Your task to perform on an android device: Open notification settings Image 0: 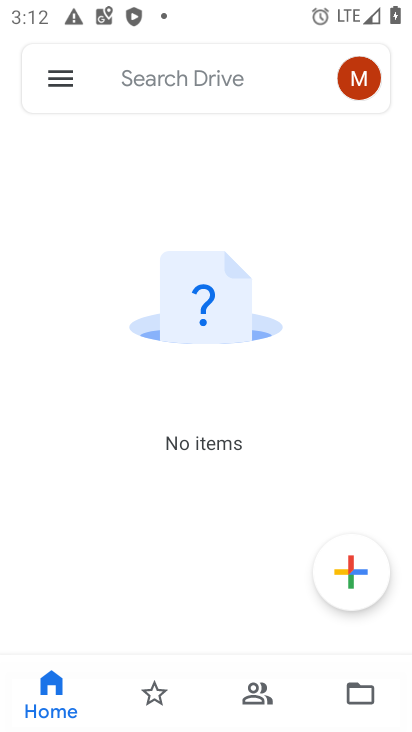
Step 0: press home button
Your task to perform on an android device: Open notification settings Image 1: 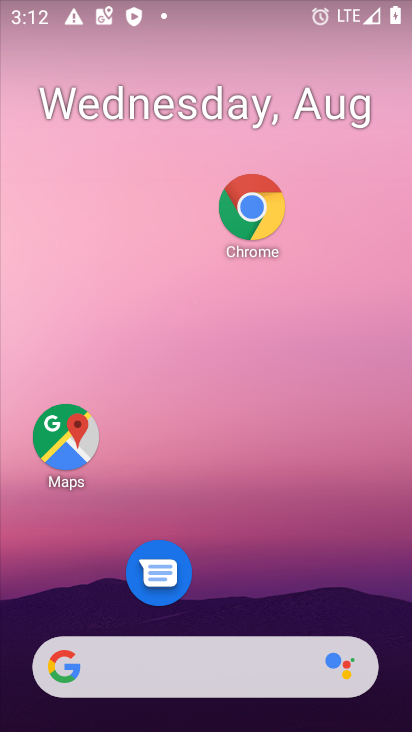
Step 1: drag from (241, 573) to (250, 113)
Your task to perform on an android device: Open notification settings Image 2: 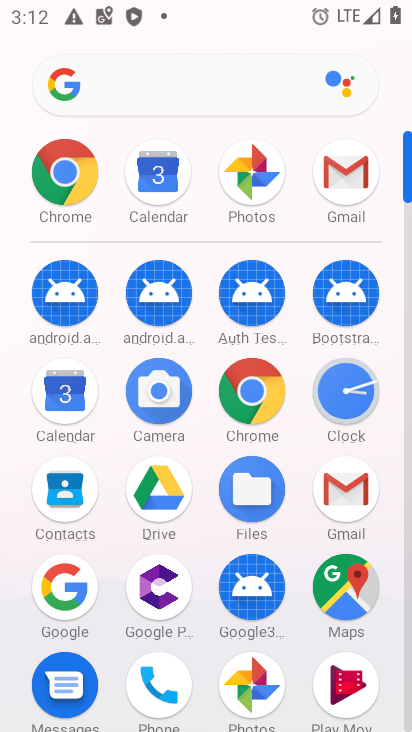
Step 2: drag from (207, 529) to (209, 101)
Your task to perform on an android device: Open notification settings Image 3: 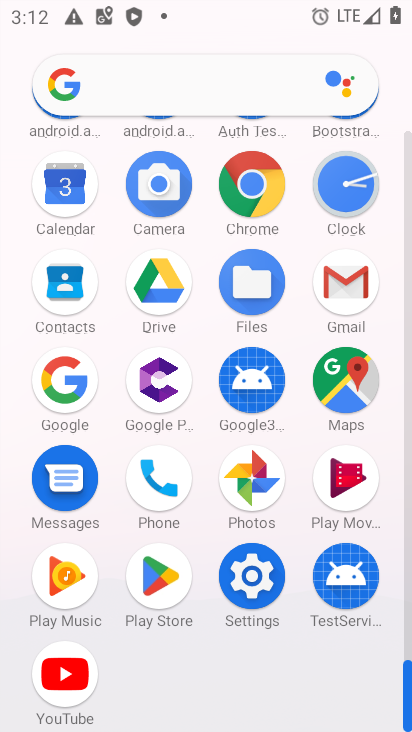
Step 3: click (254, 590)
Your task to perform on an android device: Open notification settings Image 4: 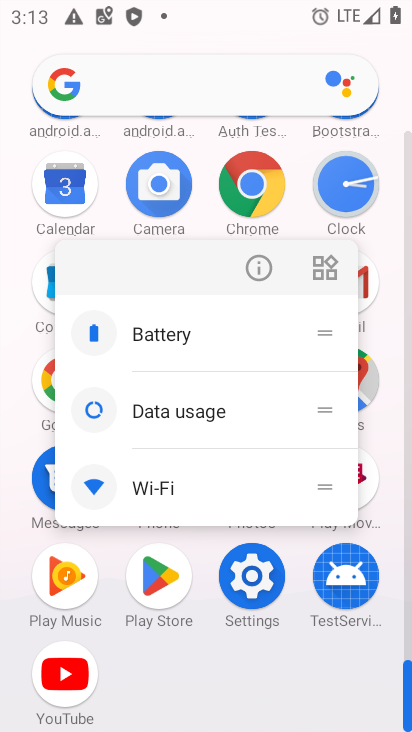
Step 4: click (256, 584)
Your task to perform on an android device: Open notification settings Image 5: 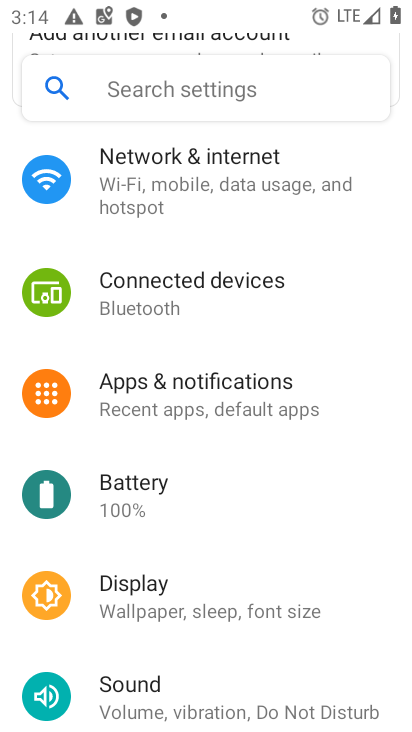
Step 5: click (262, 397)
Your task to perform on an android device: Open notification settings Image 6: 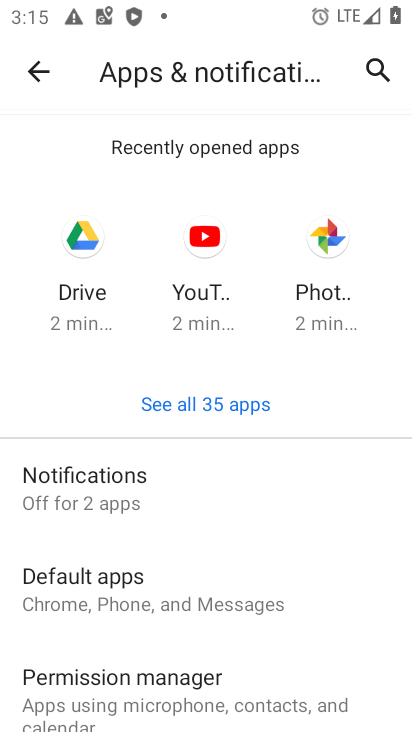
Step 6: click (96, 478)
Your task to perform on an android device: Open notification settings Image 7: 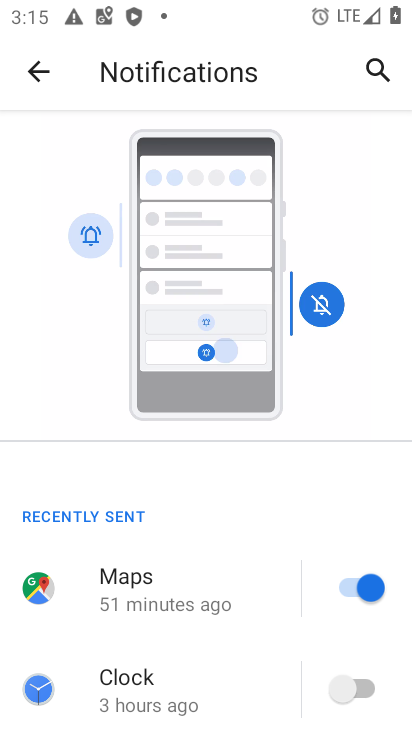
Step 7: task complete